Your task to perform on an android device: visit the assistant section in the google photos Image 0: 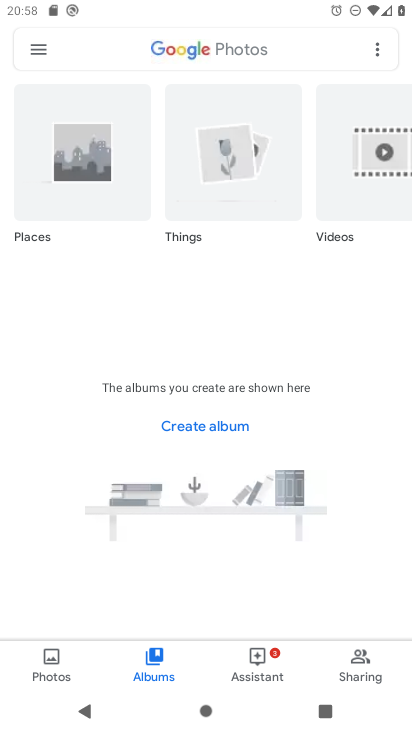
Step 0: press home button
Your task to perform on an android device: visit the assistant section in the google photos Image 1: 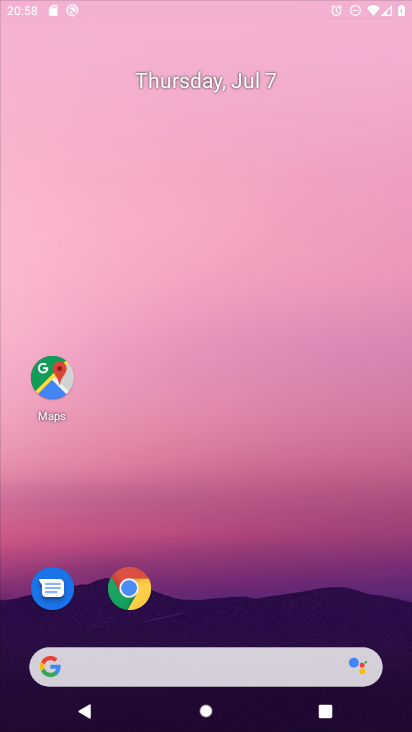
Step 1: drag from (244, 603) to (223, 298)
Your task to perform on an android device: visit the assistant section in the google photos Image 2: 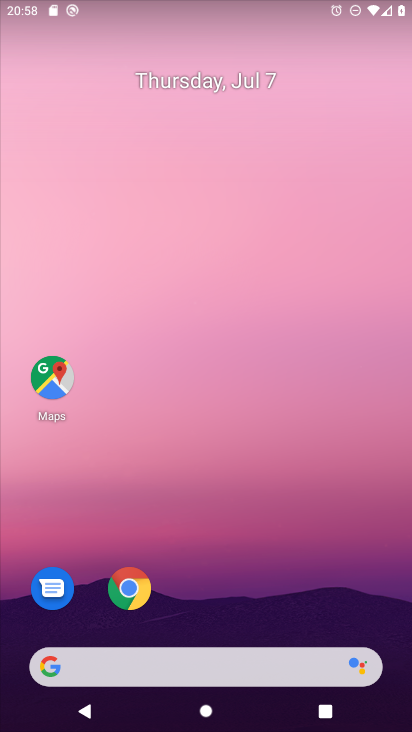
Step 2: drag from (224, 594) to (217, 400)
Your task to perform on an android device: visit the assistant section in the google photos Image 3: 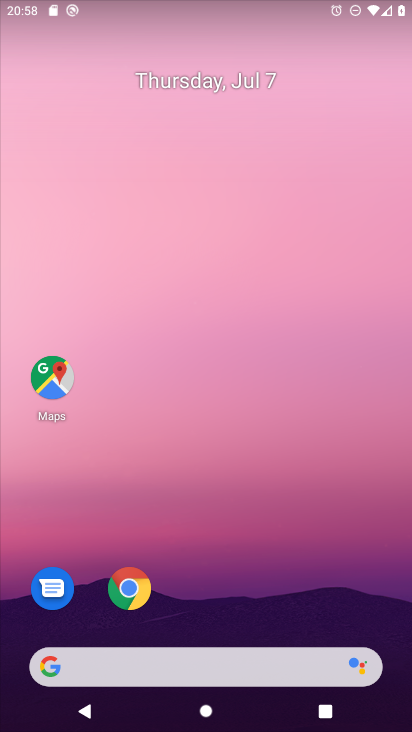
Step 3: drag from (207, 608) to (181, 148)
Your task to perform on an android device: visit the assistant section in the google photos Image 4: 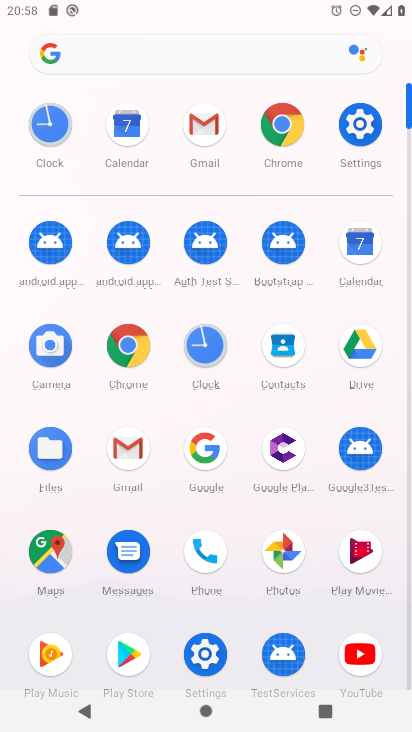
Step 4: click (280, 552)
Your task to perform on an android device: visit the assistant section in the google photos Image 5: 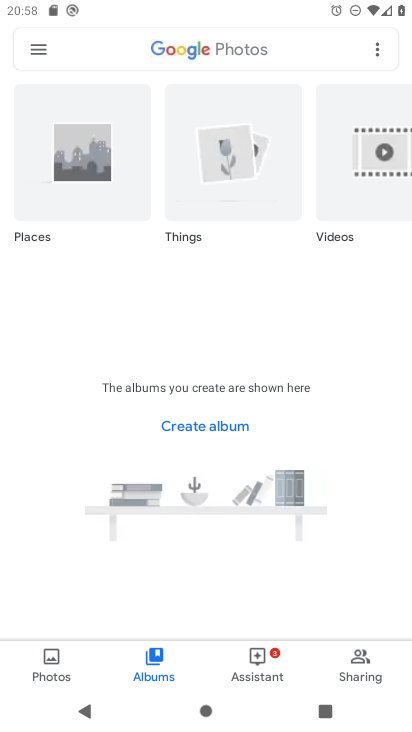
Step 5: click (44, 43)
Your task to perform on an android device: visit the assistant section in the google photos Image 6: 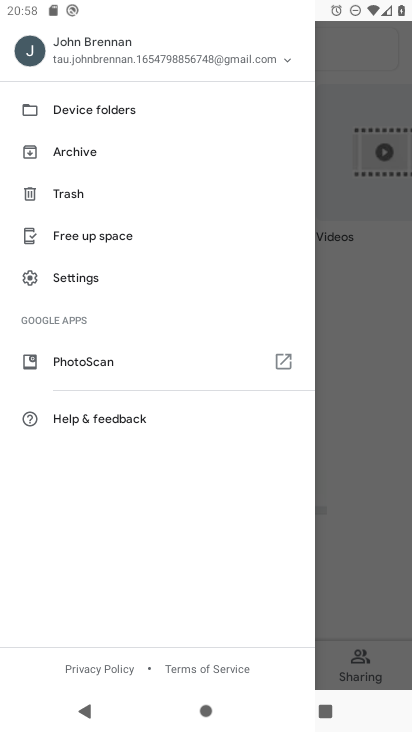
Step 6: click (344, 461)
Your task to perform on an android device: visit the assistant section in the google photos Image 7: 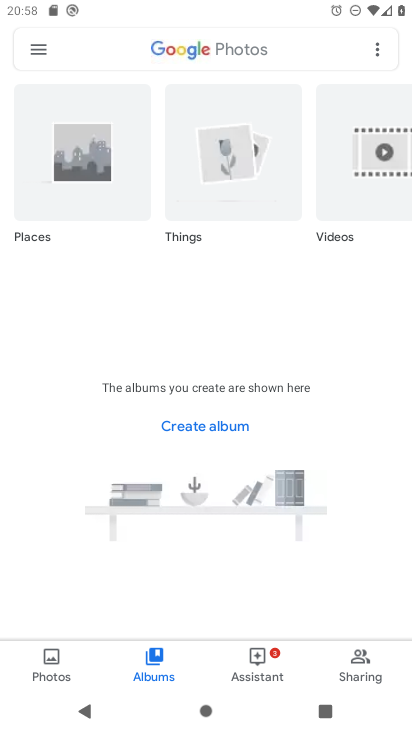
Step 7: click (251, 655)
Your task to perform on an android device: visit the assistant section in the google photos Image 8: 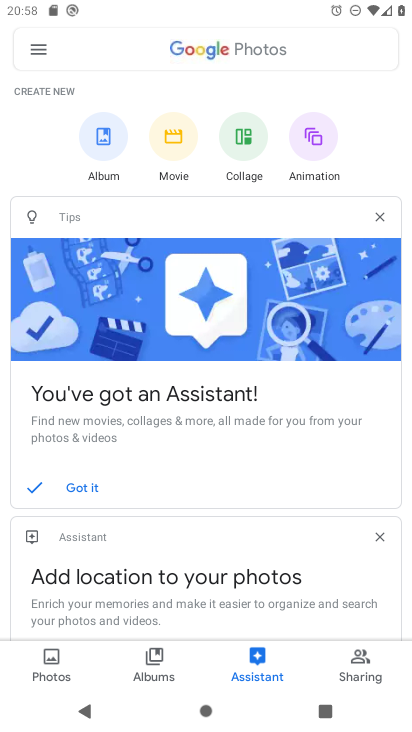
Step 8: task complete